Your task to perform on an android device: add a label to a message in the gmail app Image 0: 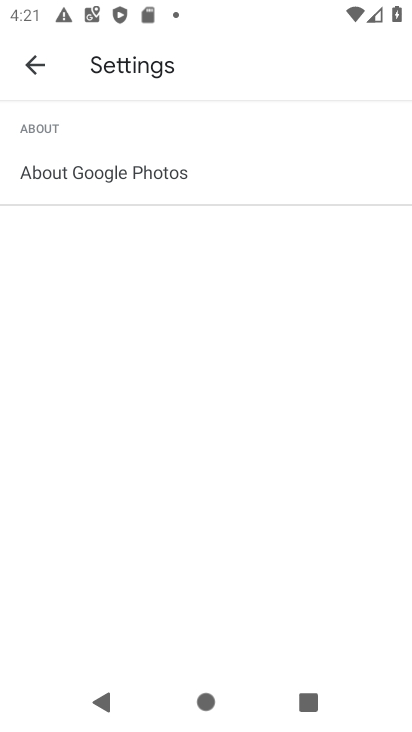
Step 0: press home button
Your task to perform on an android device: add a label to a message in the gmail app Image 1: 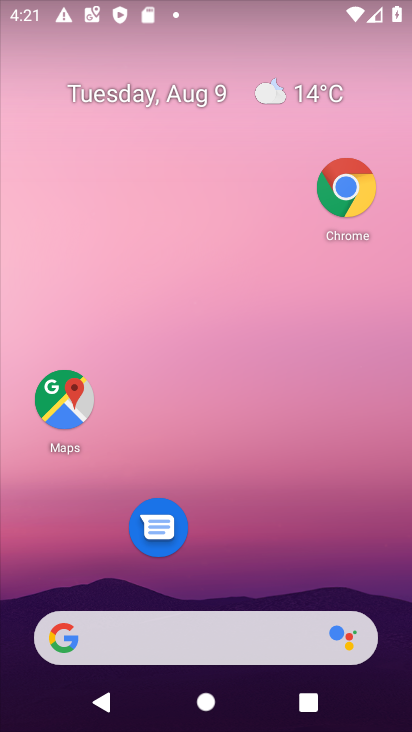
Step 1: drag from (274, 573) to (308, 311)
Your task to perform on an android device: add a label to a message in the gmail app Image 2: 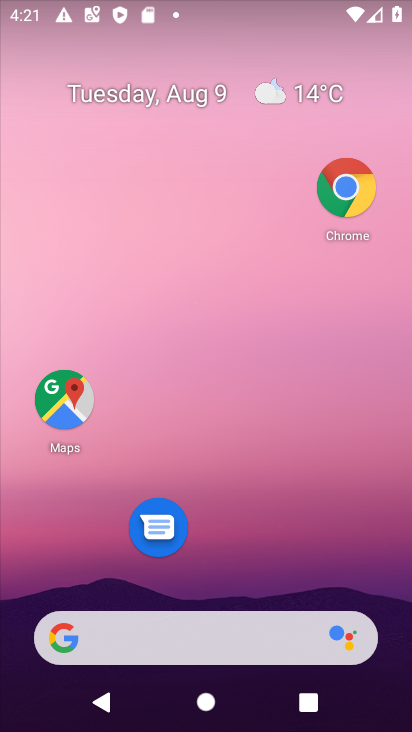
Step 2: drag from (209, 573) to (188, 113)
Your task to perform on an android device: add a label to a message in the gmail app Image 3: 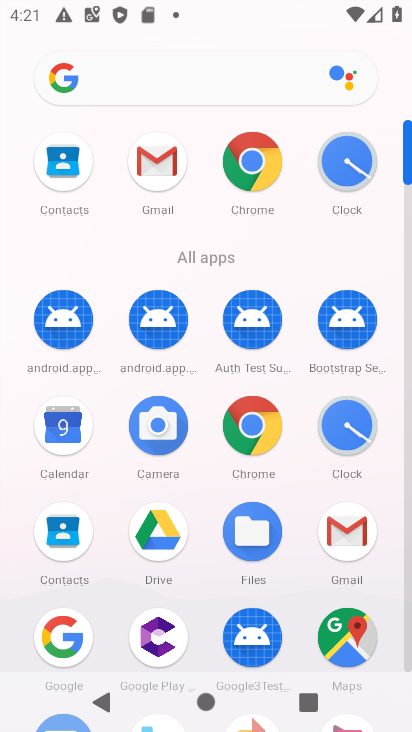
Step 3: click (177, 270)
Your task to perform on an android device: add a label to a message in the gmail app Image 4: 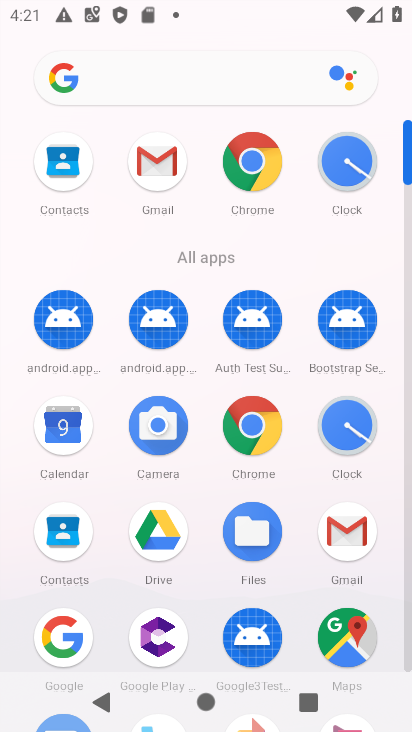
Step 4: click (168, 246)
Your task to perform on an android device: add a label to a message in the gmail app Image 5: 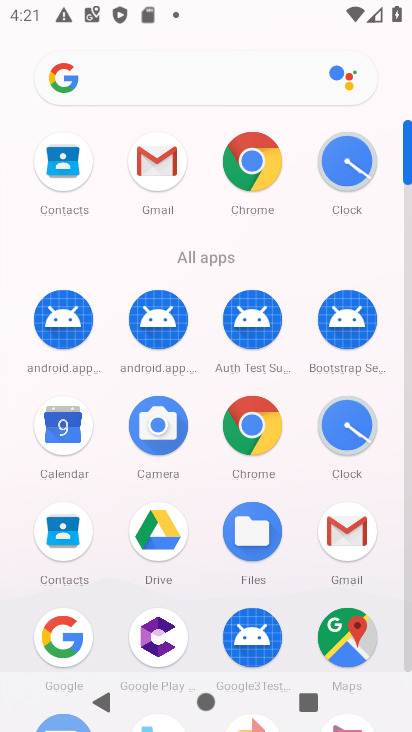
Step 5: click (133, 171)
Your task to perform on an android device: add a label to a message in the gmail app Image 6: 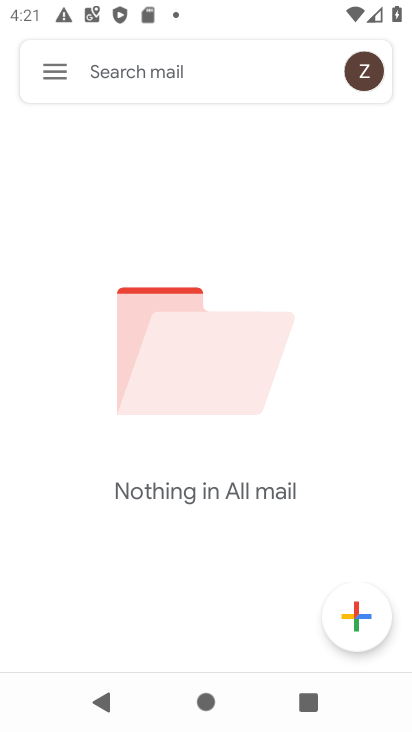
Step 6: task complete